Your task to perform on an android device: Go to CNN.com Image 0: 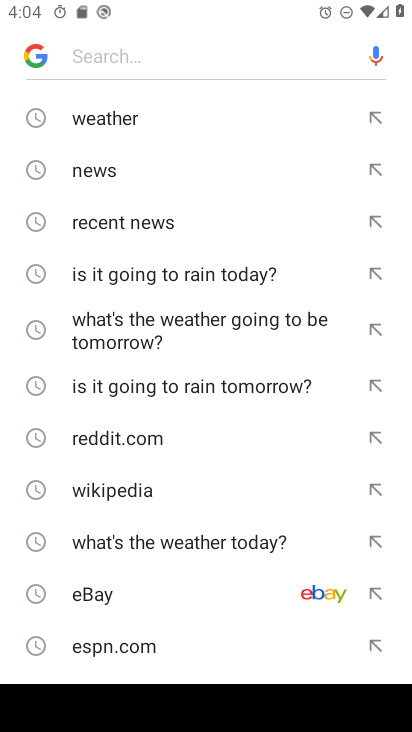
Step 0: press home button
Your task to perform on an android device: Go to CNN.com Image 1: 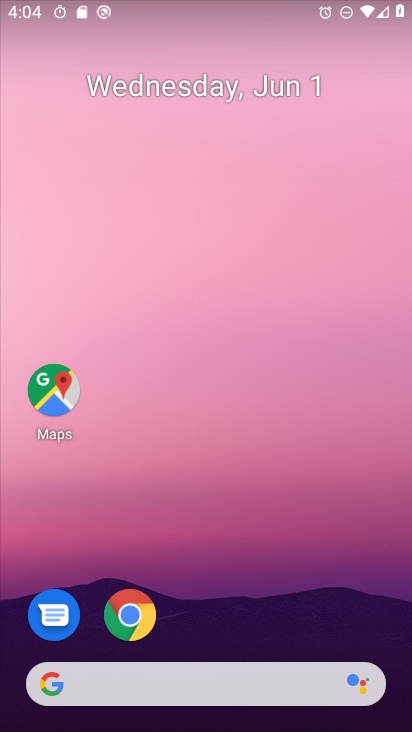
Step 1: drag from (190, 697) to (250, 6)
Your task to perform on an android device: Go to CNN.com Image 2: 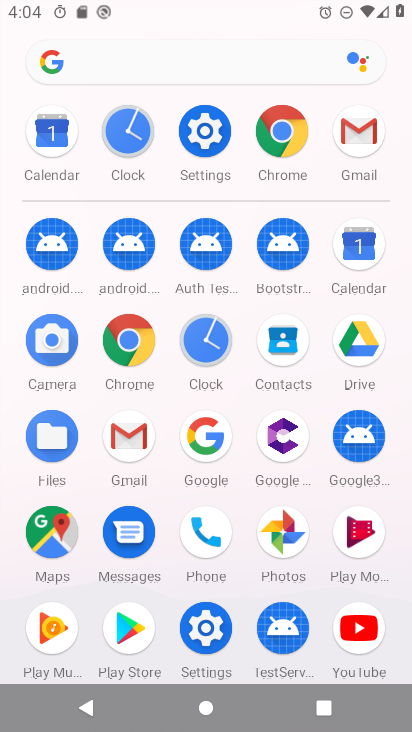
Step 2: click (120, 351)
Your task to perform on an android device: Go to CNN.com Image 3: 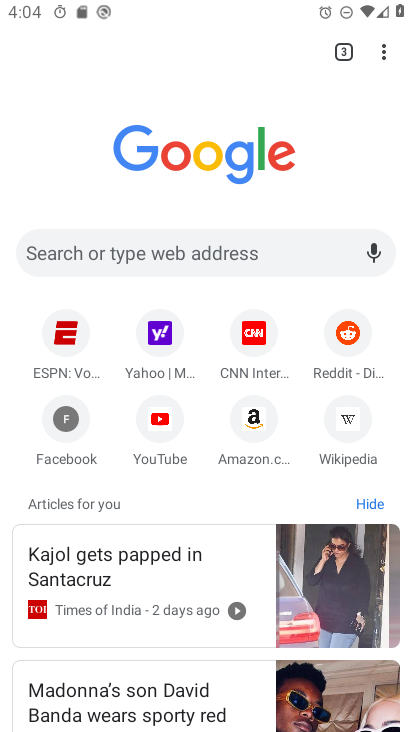
Step 3: click (249, 256)
Your task to perform on an android device: Go to CNN.com Image 4: 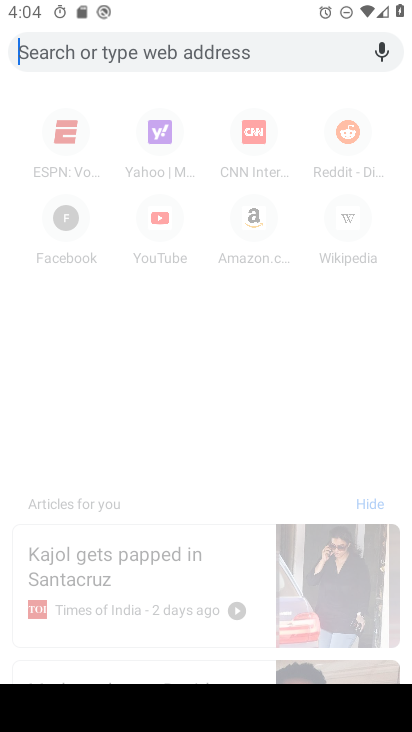
Step 4: type "cnn.com"
Your task to perform on an android device: Go to CNN.com Image 5: 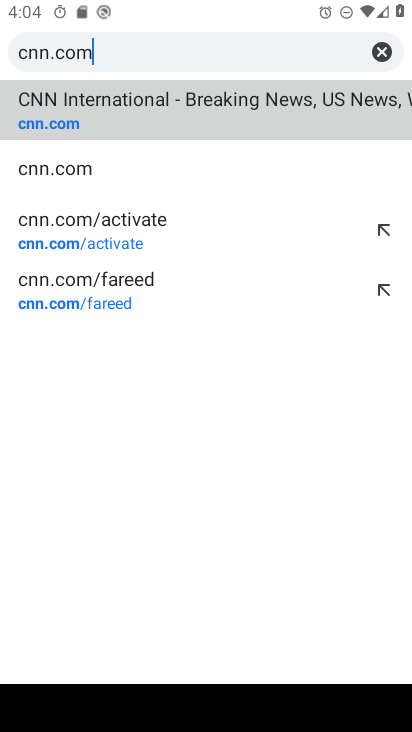
Step 5: click (245, 91)
Your task to perform on an android device: Go to CNN.com Image 6: 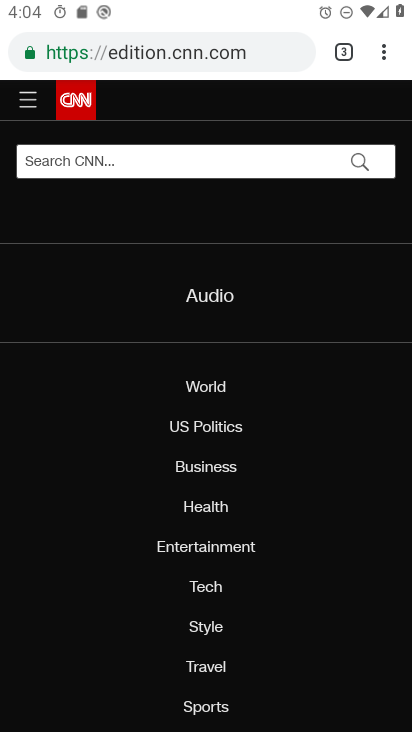
Step 6: task complete